Your task to perform on an android device: toggle wifi Image 0: 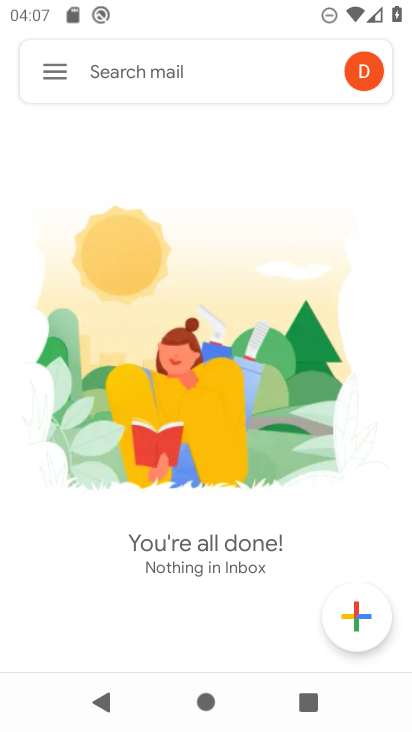
Step 0: press home button
Your task to perform on an android device: toggle wifi Image 1: 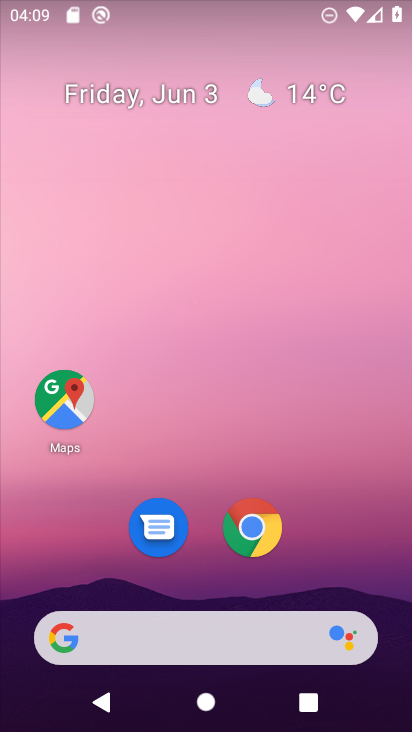
Step 1: drag from (309, 584) to (335, 18)
Your task to perform on an android device: toggle wifi Image 2: 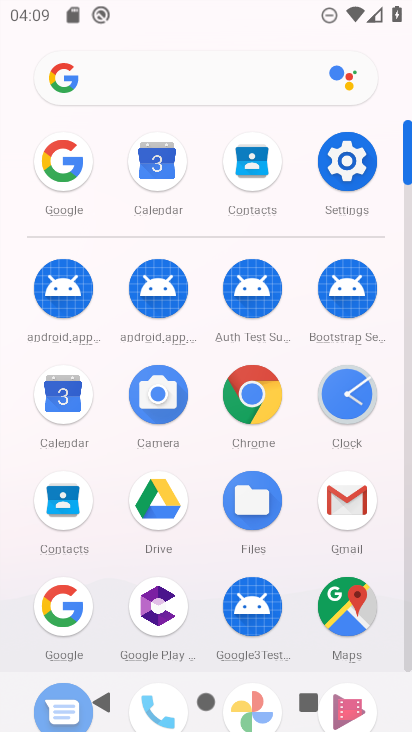
Step 2: click (347, 162)
Your task to perform on an android device: toggle wifi Image 3: 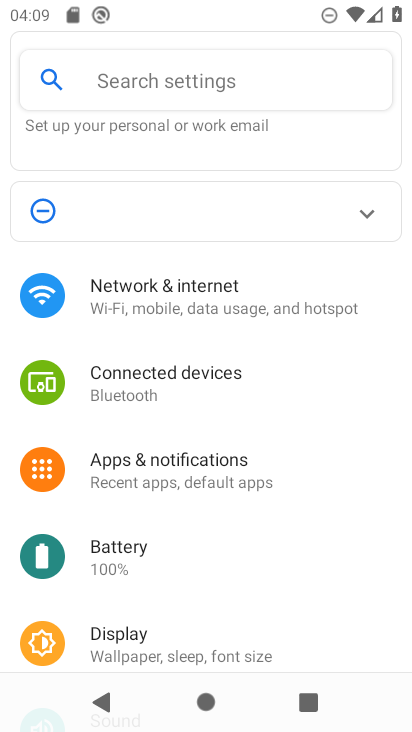
Step 3: click (234, 305)
Your task to perform on an android device: toggle wifi Image 4: 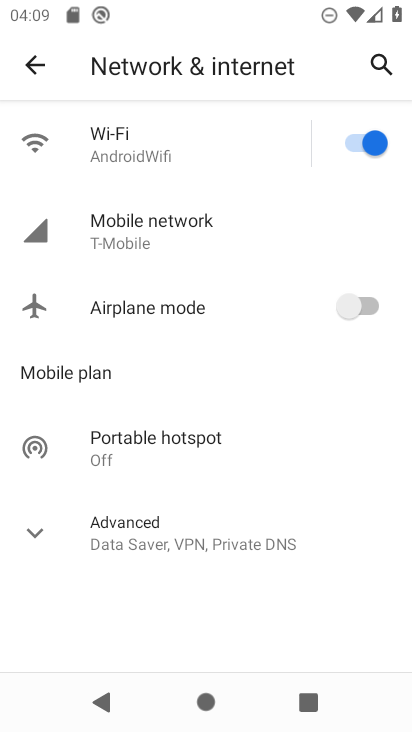
Step 4: click (379, 138)
Your task to perform on an android device: toggle wifi Image 5: 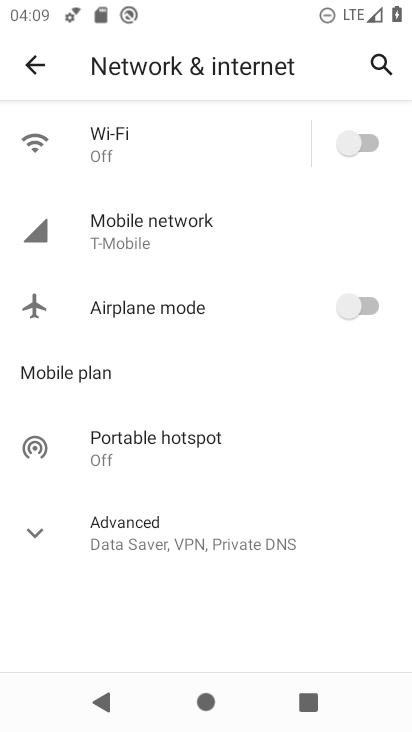
Step 5: task complete